Your task to perform on an android device: change keyboard looks Image 0: 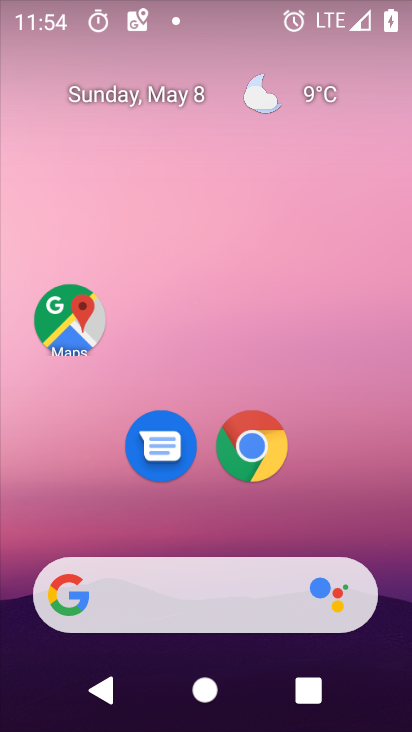
Step 0: drag from (392, 560) to (377, 2)
Your task to perform on an android device: change keyboard looks Image 1: 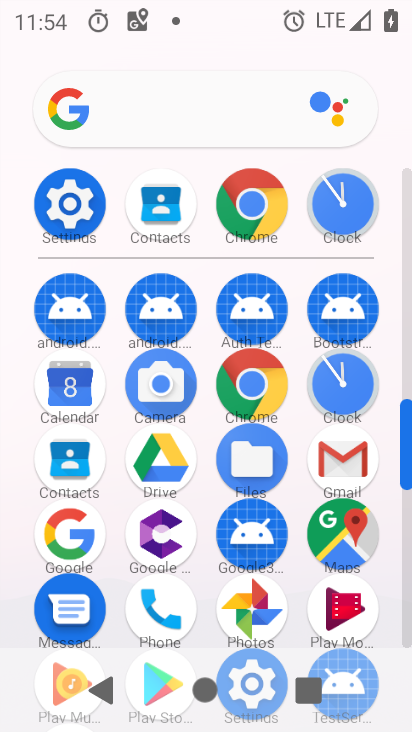
Step 1: click (69, 203)
Your task to perform on an android device: change keyboard looks Image 2: 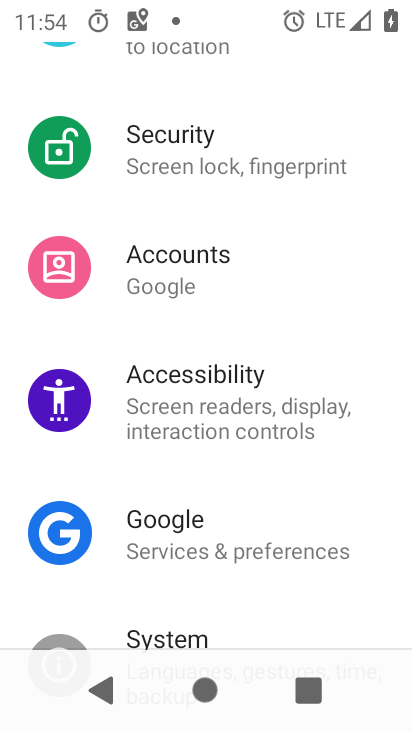
Step 2: drag from (295, 548) to (297, 288)
Your task to perform on an android device: change keyboard looks Image 3: 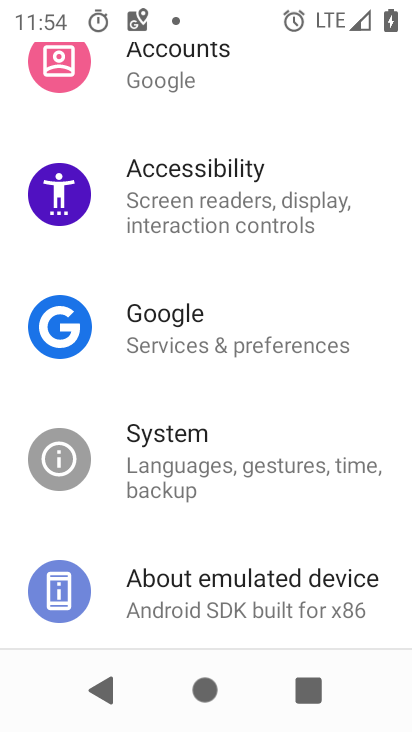
Step 3: click (168, 467)
Your task to perform on an android device: change keyboard looks Image 4: 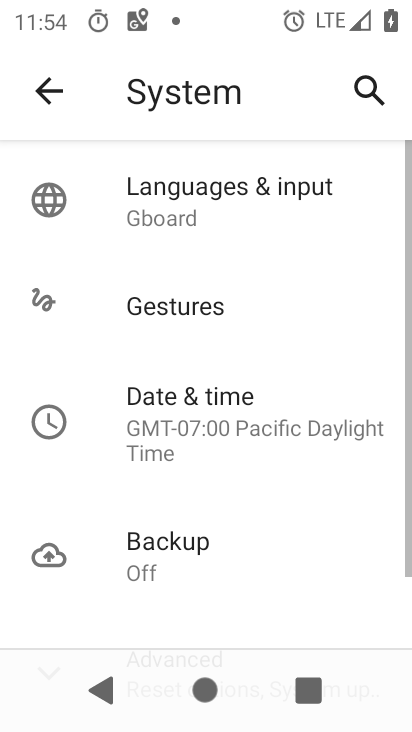
Step 4: click (124, 211)
Your task to perform on an android device: change keyboard looks Image 5: 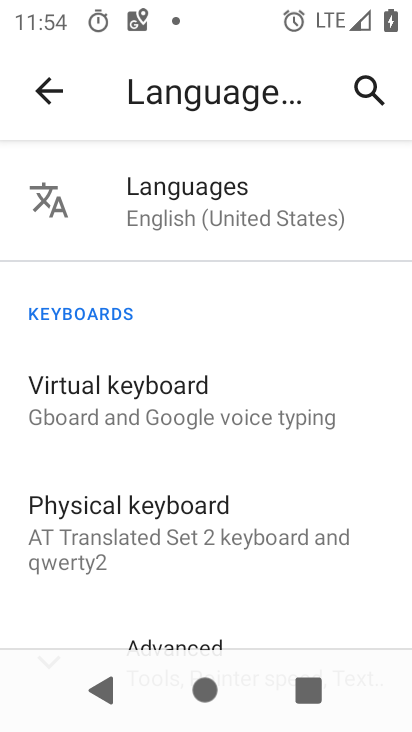
Step 5: click (146, 406)
Your task to perform on an android device: change keyboard looks Image 6: 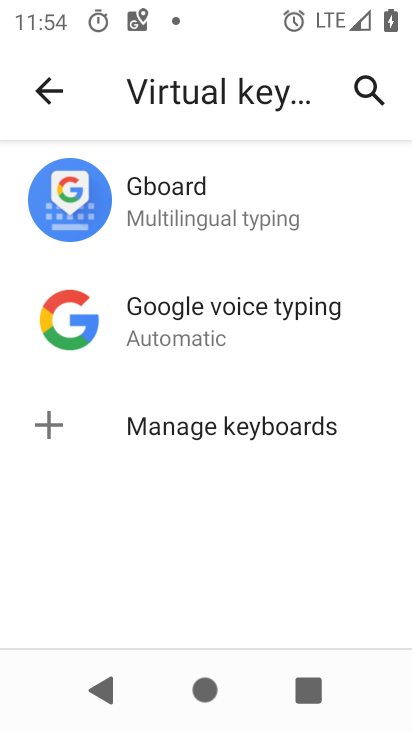
Step 6: click (141, 227)
Your task to perform on an android device: change keyboard looks Image 7: 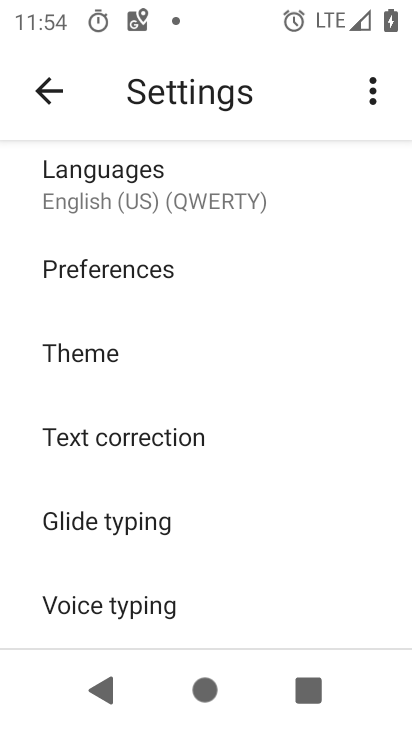
Step 7: click (111, 352)
Your task to perform on an android device: change keyboard looks Image 8: 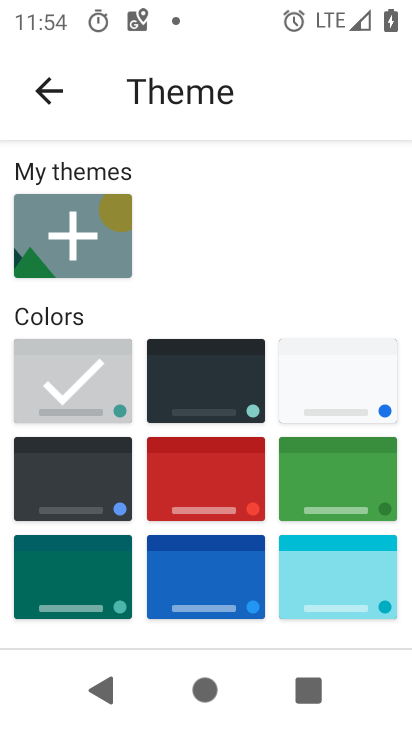
Step 8: click (328, 489)
Your task to perform on an android device: change keyboard looks Image 9: 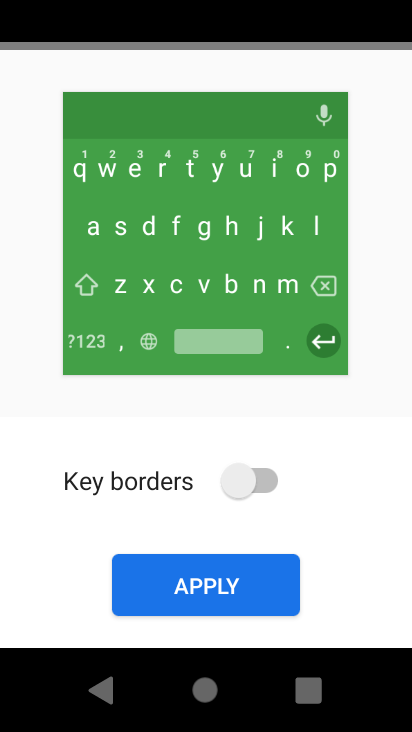
Step 9: click (231, 490)
Your task to perform on an android device: change keyboard looks Image 10: 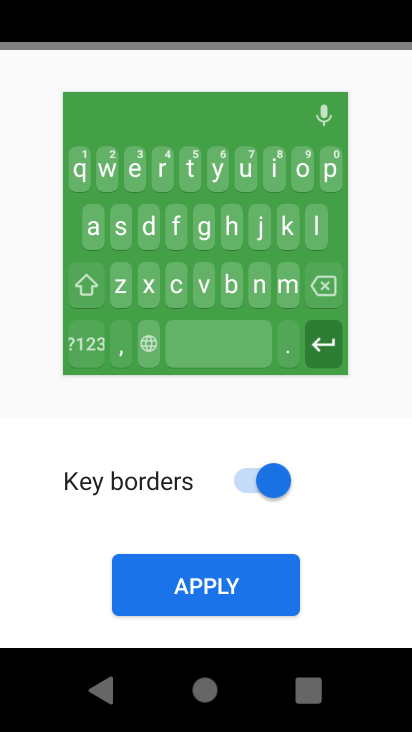
Step 10: click (202, 591)
Your task to perform on an android device: change keyboard looks Image 11: 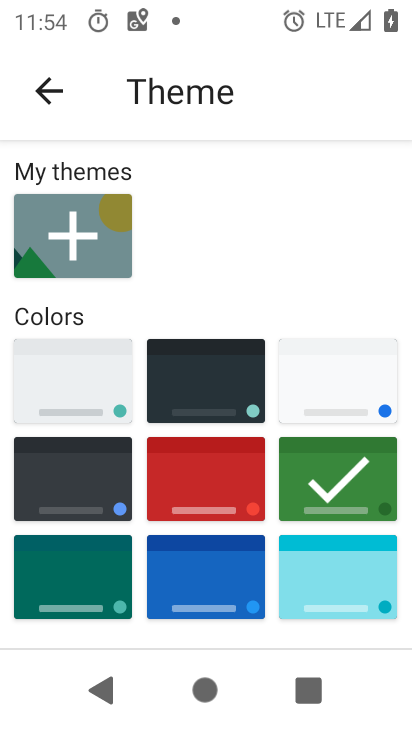
Step 11: task complete